Your task to perform on an android device: change the clock display to show seconds Image 0: 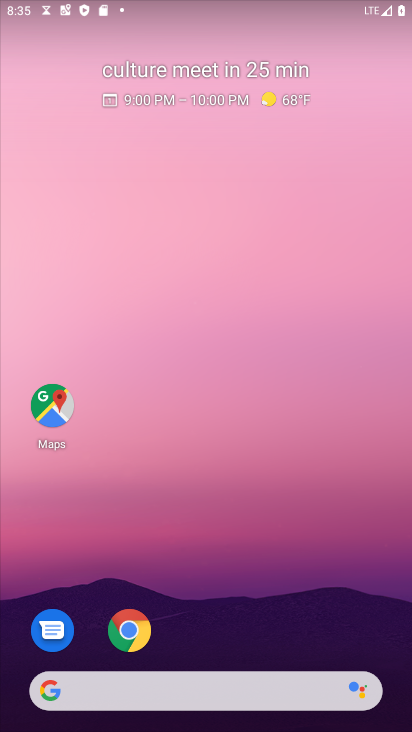
Step 0: drag from (264, 630) to (183, 50)
Your task to perform on an android device: change the clock display to show seconds Image 1: 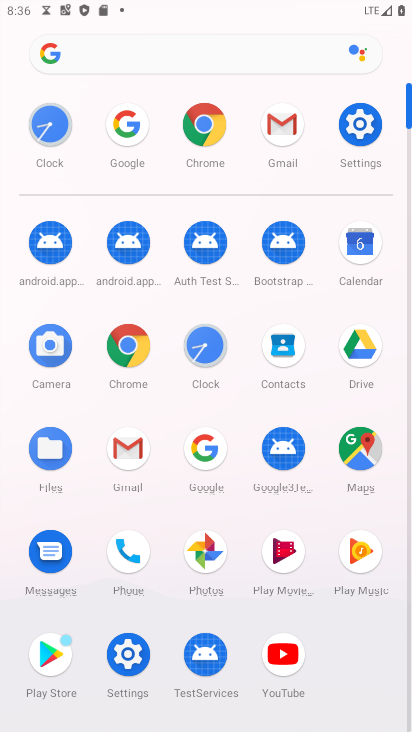
Step 1: click (50, 126)
Your task to perform on an android device: change the clock display to show seconds Image 2: 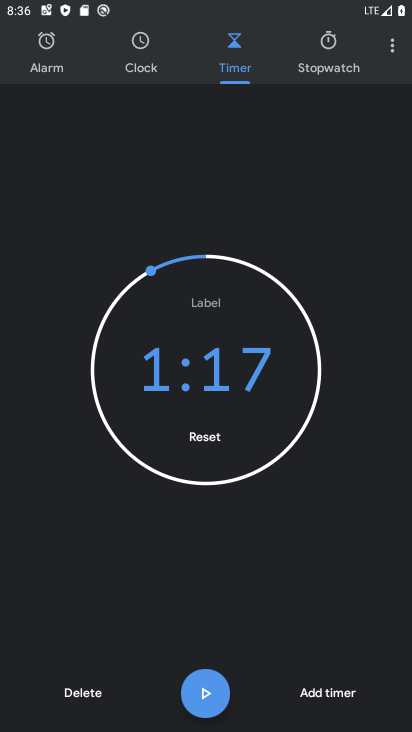
Step 2: click (391, 47)
Your task to perform on an android device: change the clock display to show seconds Image 3: 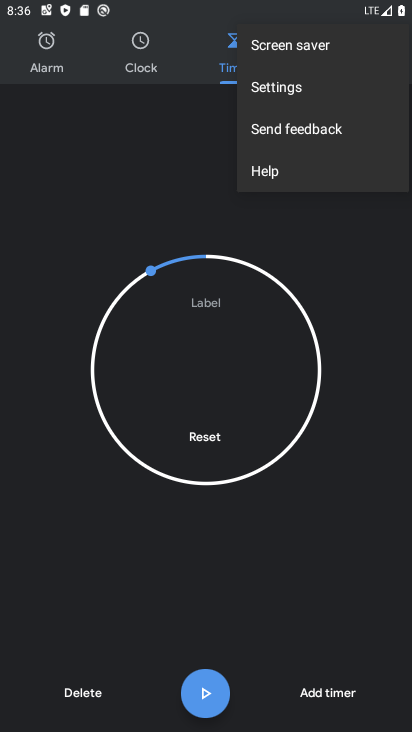
Step 3: click (279, 88)
Your task to perform on an android device: change the clock display to show seconds Image 4: 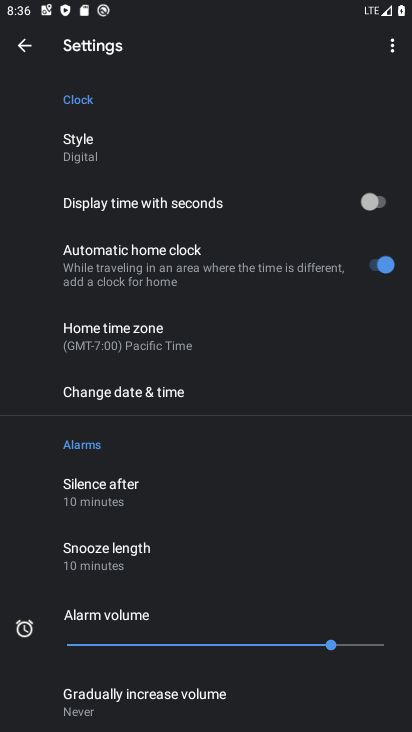
Step 4: click (381, 210)
Your task to perform on an android device: change the clock display to show seconds Image 5: 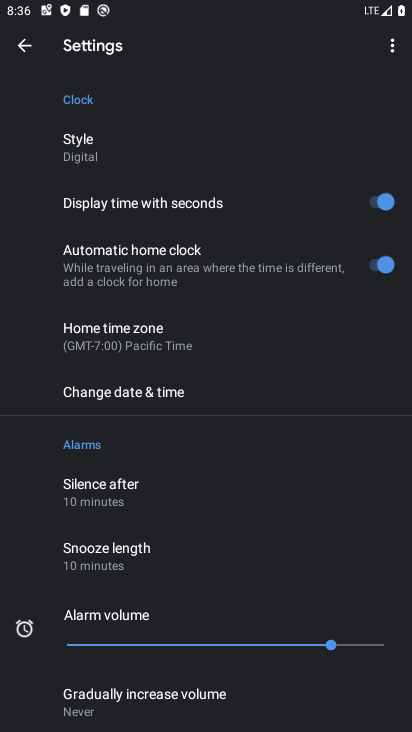
Step 5: task complete